Your task to perform on an android device: Open battery settings Image 0: 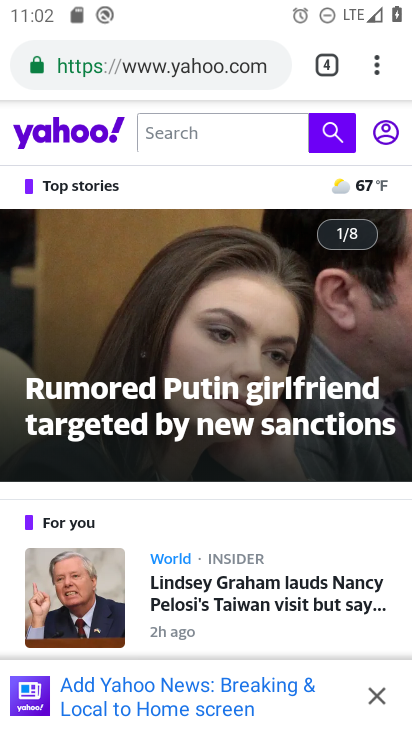
Step 0: press home button
Your task to perform on an android device: Open battery settings Image 1: 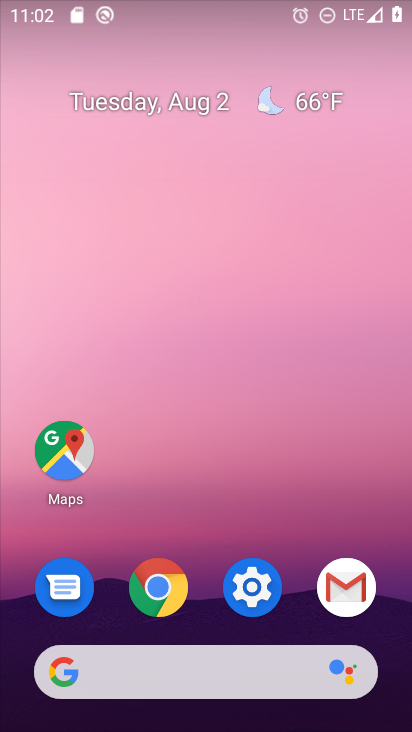
Step 1: click (236, 581)
Your task to perform on an android device: Open battery settings Image 2: 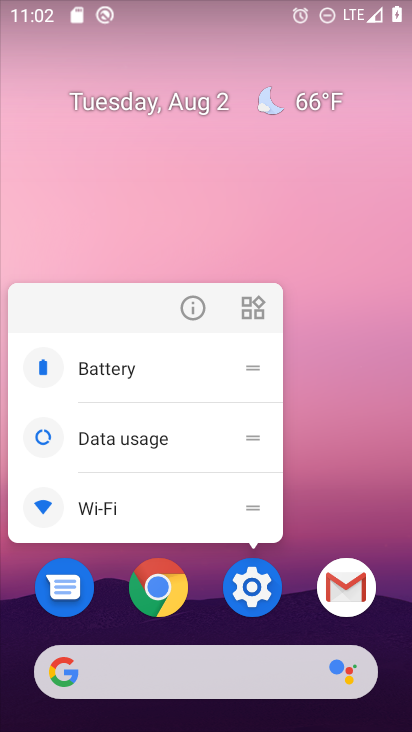
Step 2: click (225, 596)
Your task to perform on an android device: Open battery settings Image 3: 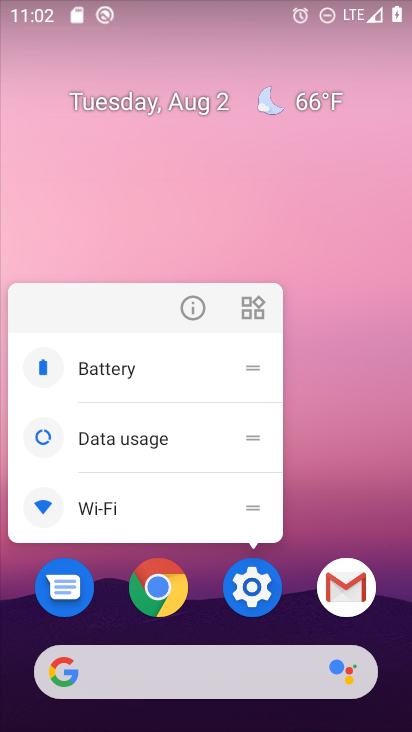
Step 3: click (254, 582)
Your task to perform on an android device: Open battery settings Image 4: 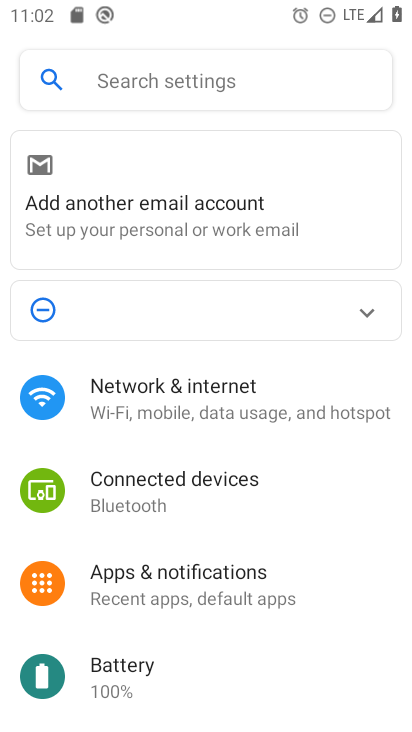
Step 4: click (141, 679)
Your task to perform on an android device: Open battery settings Image 5: 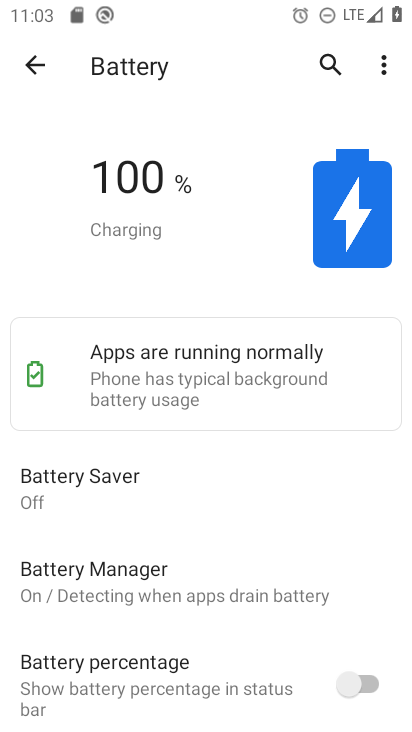
Step 5: task complete